Your task to perform on an android device: turn smart compose on in the gmail app Image 0: 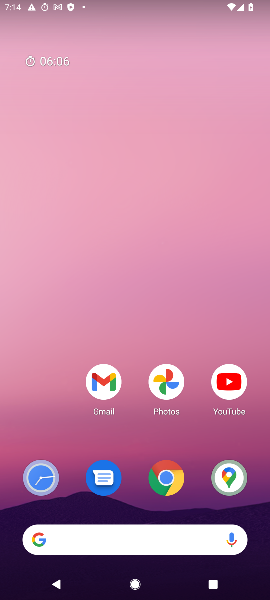
Step 0: drag from (139, 448) to (164, 164)
Your task to perform on an android device: turn smart compose on in the gmail app Image 1: 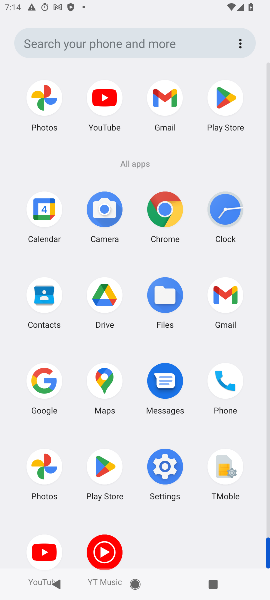
Step 1: click (222, 288)
Your task to perform on an android device: turn smart compose on in the gmail app Image 2: 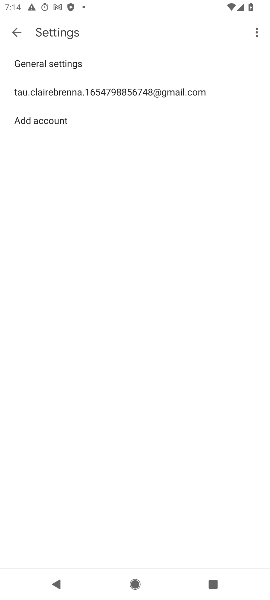
Step 2: drag from (102, 540) to (149, 287)
Your task to perform on an android device: turn smart compose on in the gmail app Image 3: 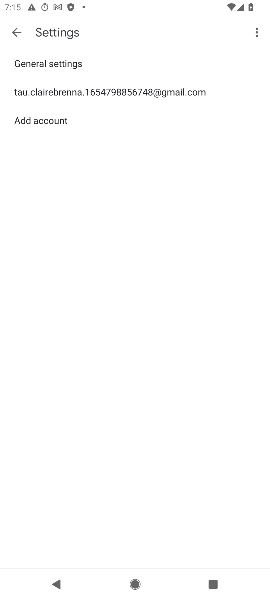
Step 3: click (84, 99)
Your task to perform on an android device: turn smart compose on in the gmail app Image 4: 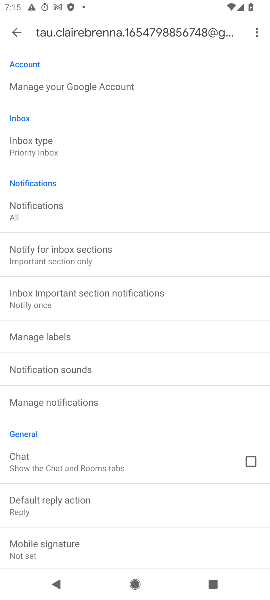
Step 4: task complete